Your task to perform on an android device: toggle notification dots Image 0: 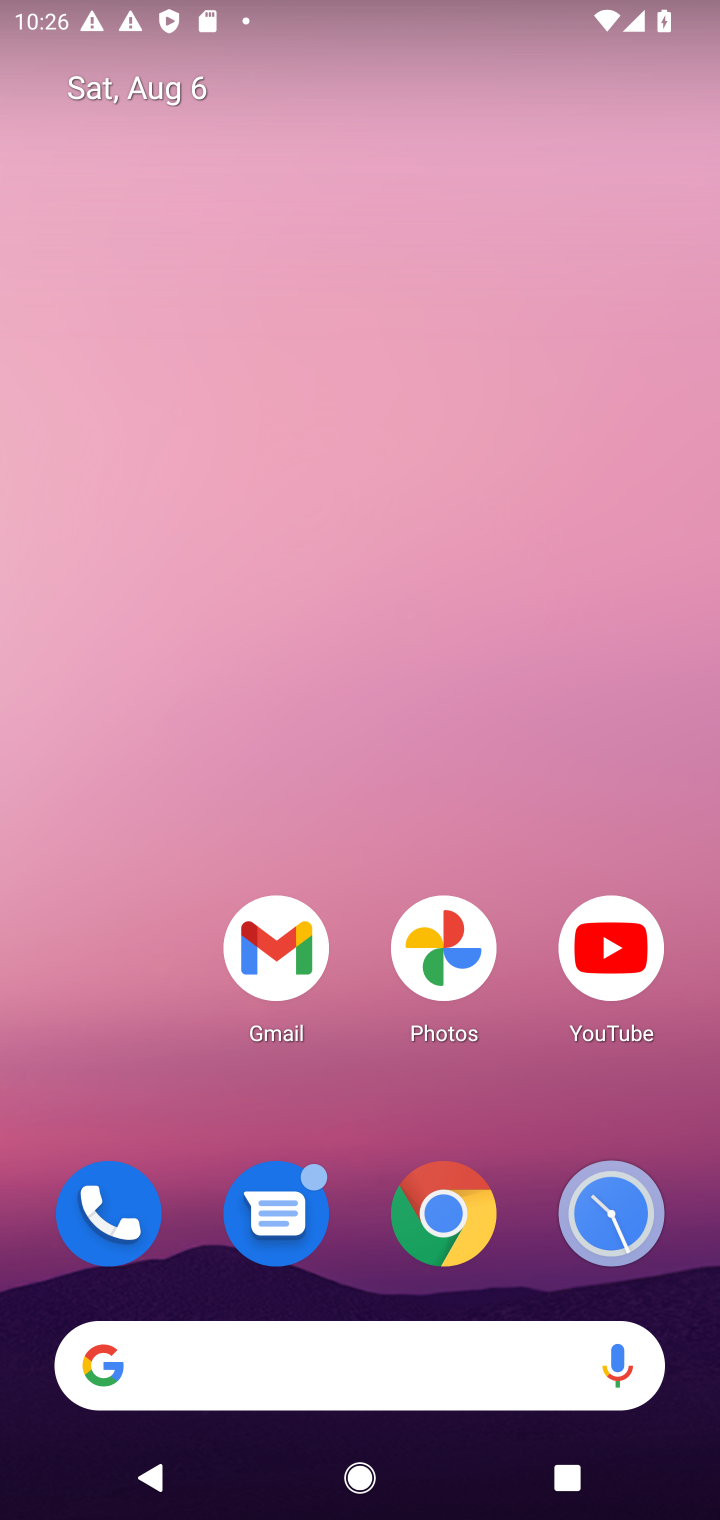
Step 0: drag from (465, 766) to (536, 107)
Your task to perform on an android device: toggle notification dots Image 1: 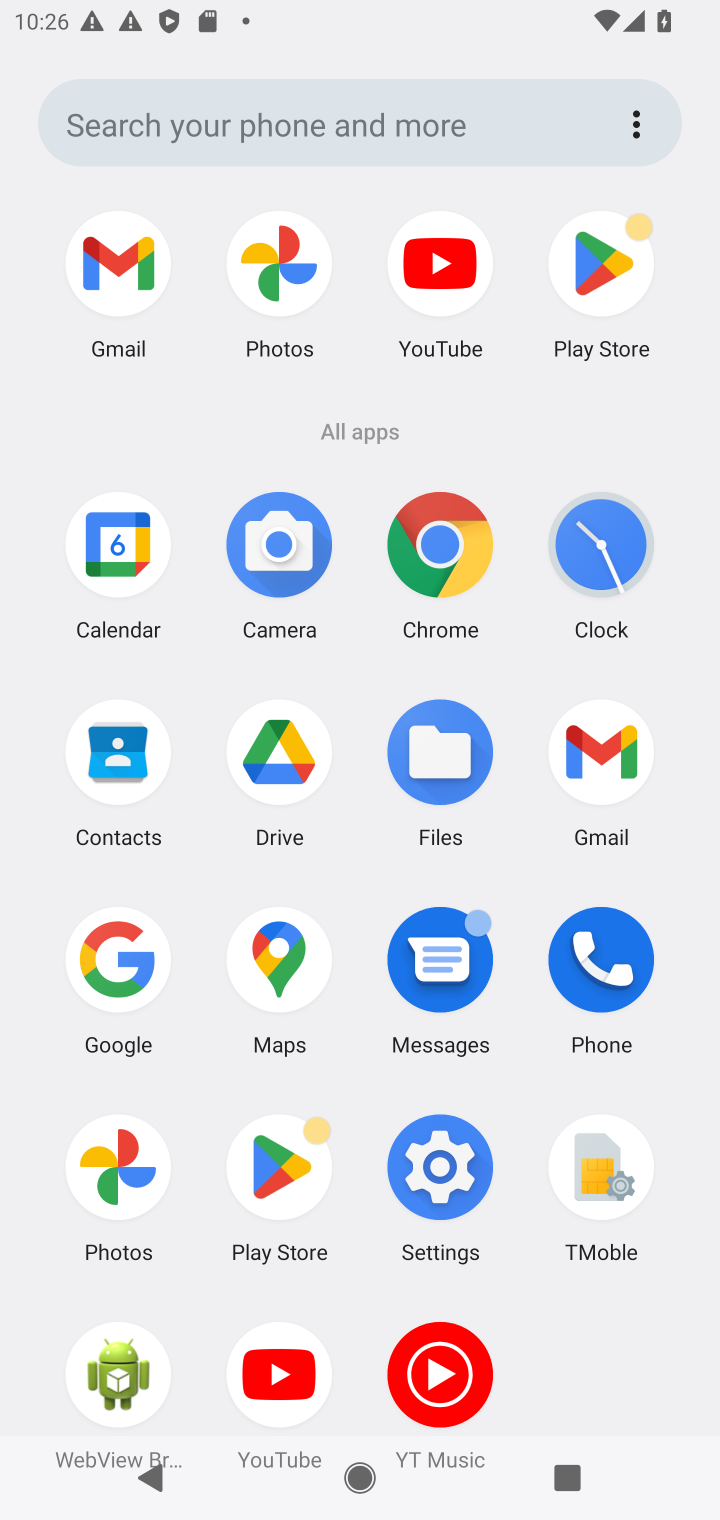
Step 1: click (410, 1142)
Your task to perform on an android device: toggle notification dots Image 2: 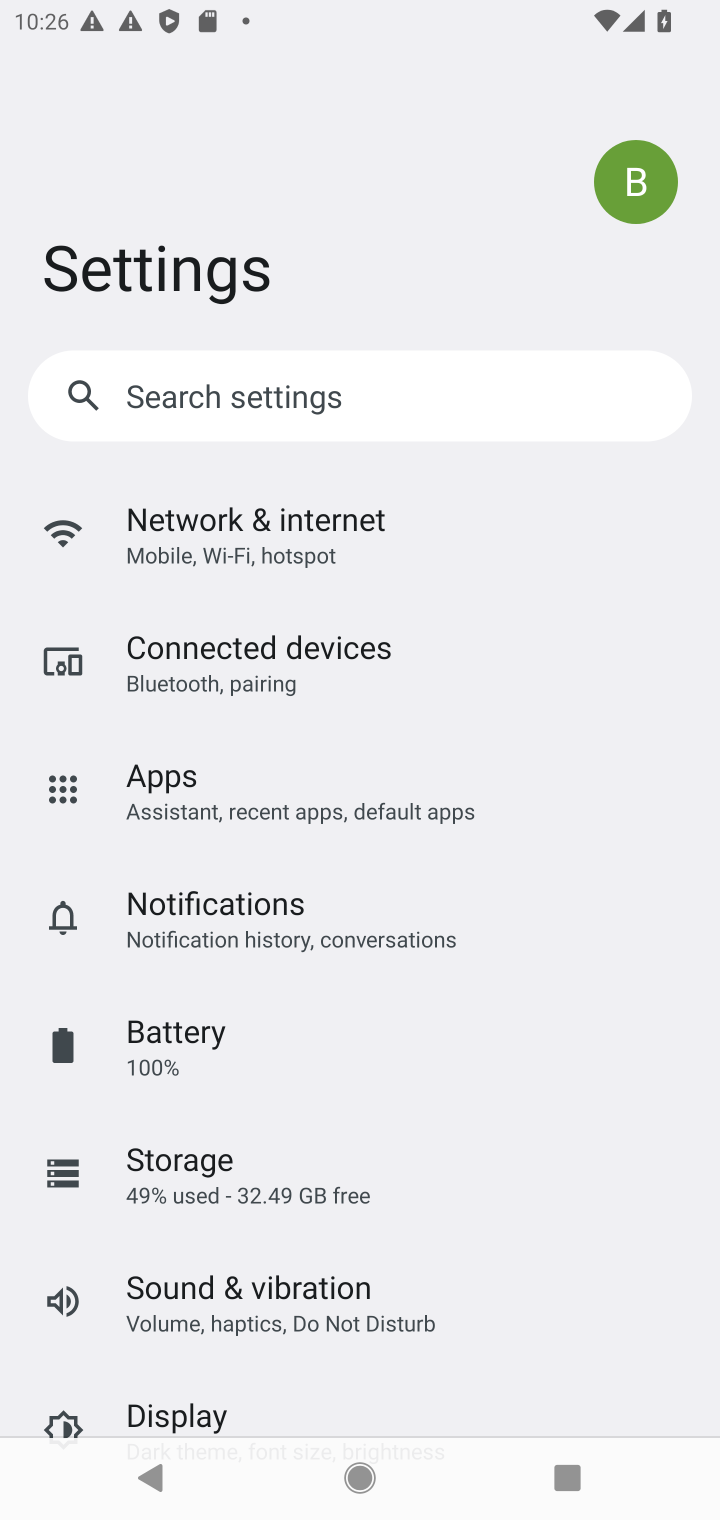
Step 2: task complete